Your task to perform on an android device: change the clock style Image 0: 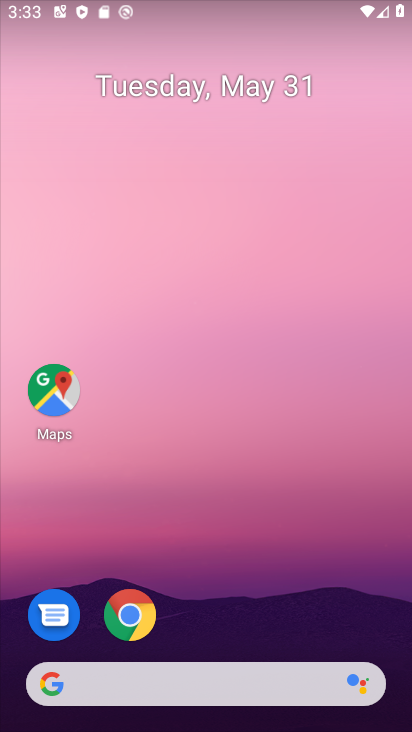
Step 0: drag from (191, 340) to (128, 54)
Your task to perform on an android device: change the clock style Image 1: 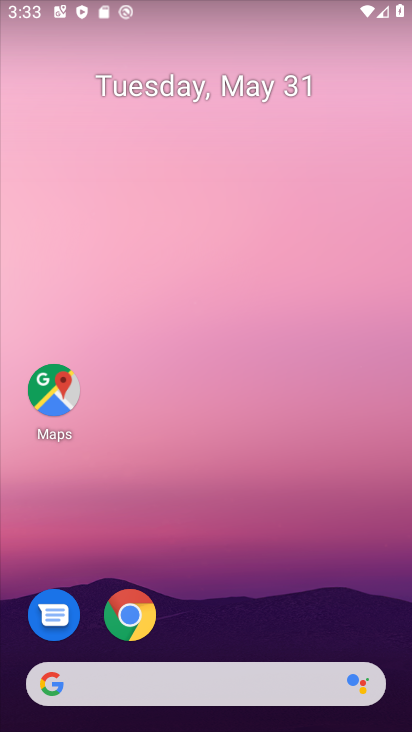
Step 1: drag from (213, 631) to (121, 188)
Your task to perform on an android device: change the clock style Image 2: 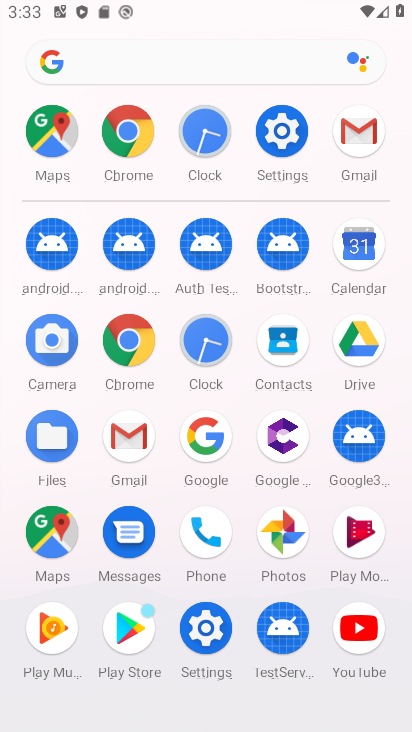
Step 2: click (203, 334)
Your task to perform on an android device: change the clock style Image 3: 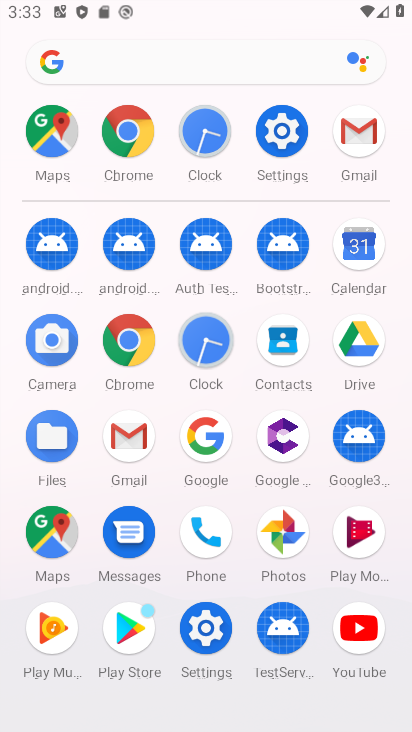
Step 3: click (204, 335)
Your task to perform on an android device: change the clock style Image 4: 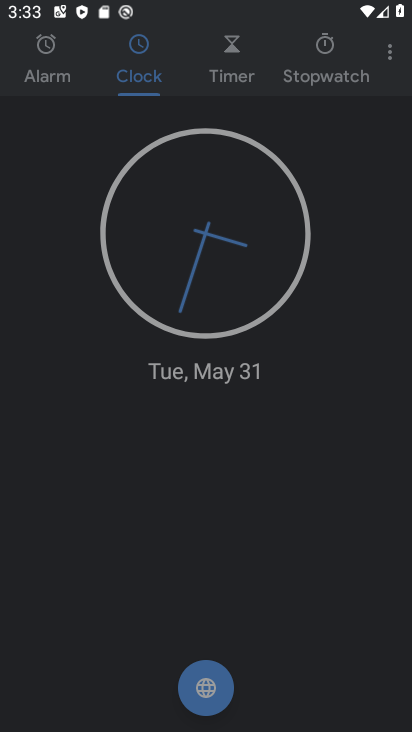
Step 4: click (204, 335)
Your task to perform on an android device: change the clock style Image 5: 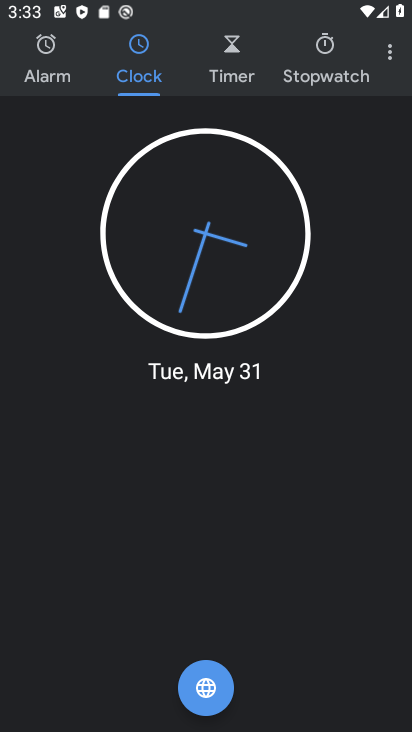
Step 5: click (391, 52)
Your task to perform on an android device: change the clock style Image 6: 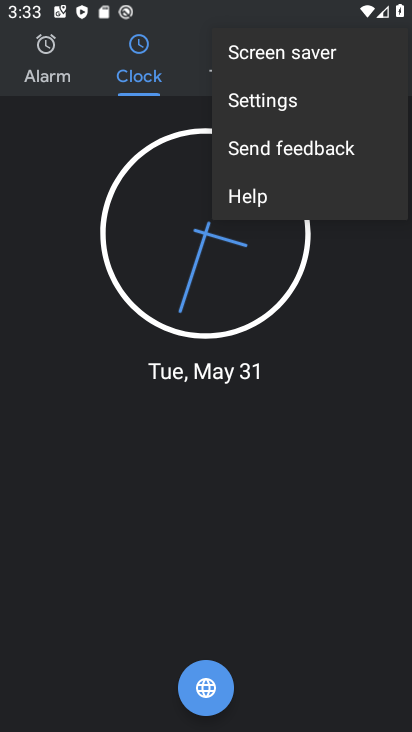
Step 6: click (266, 107)
Your task to perform on an android device: change the clock style Image 7: 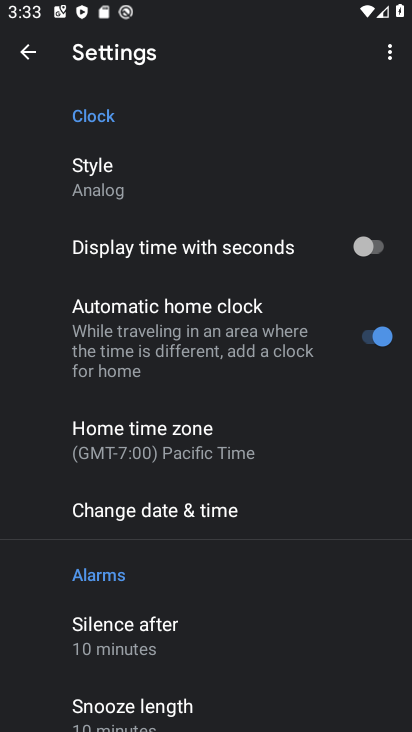
Step 7: click (156, 166)
Your task to perform on an android device: change the clock style Image 8: 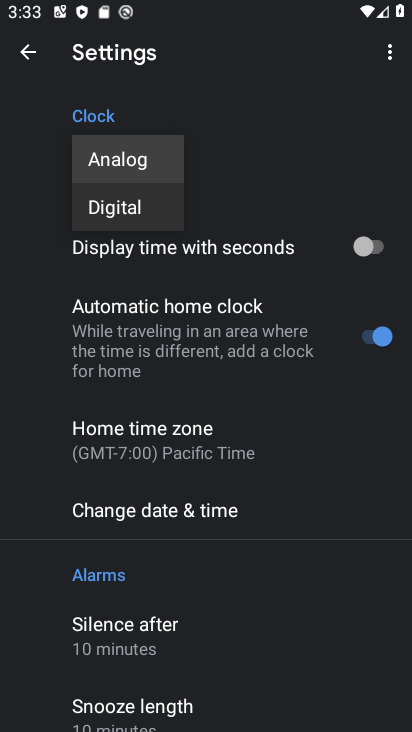
Step 8: click (129, 209)
Your task to perform on an android device: change the clock style Image 9: 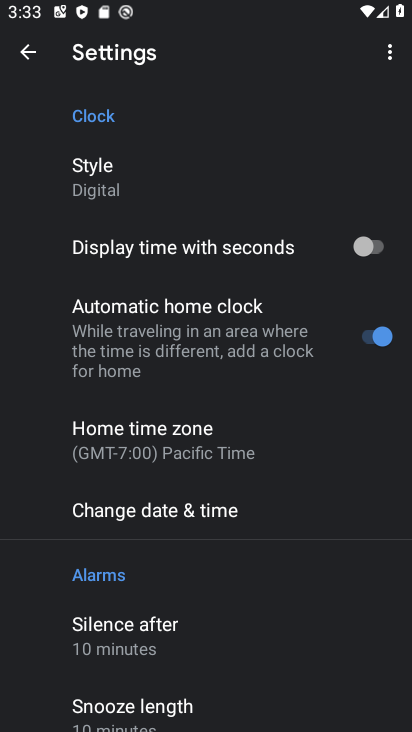
Step 9: task complete